Your task to perform on an android device: set the stopwatch Image 0: 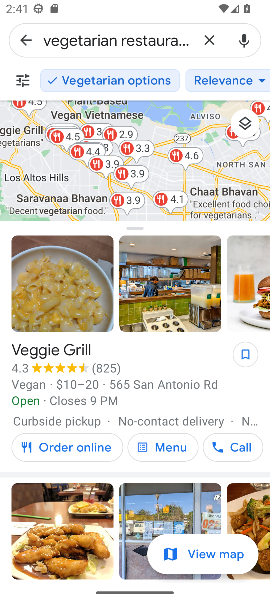
Step 0: press home button
Your task to perform on an android device: set the stopwatch Image 1: 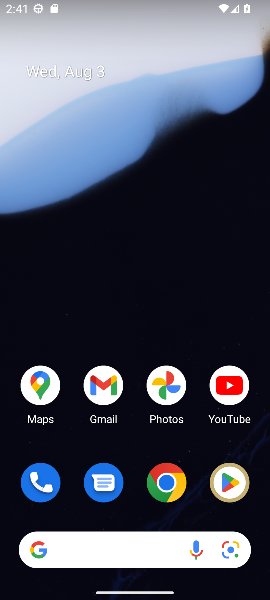
Step 1: drag from (106, 549) to (220, 120)
Your task to perform on an android device: set the stopwatch Image 2: 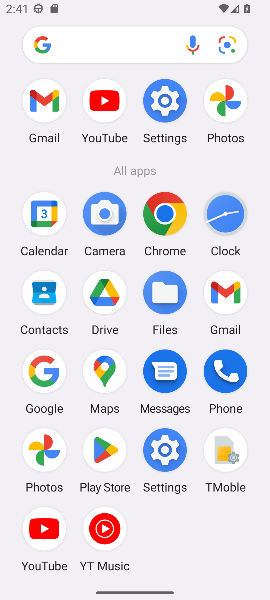
Step 2: click (221, 209)
Your task to perform on an android device: set the stopwatch Image 3: 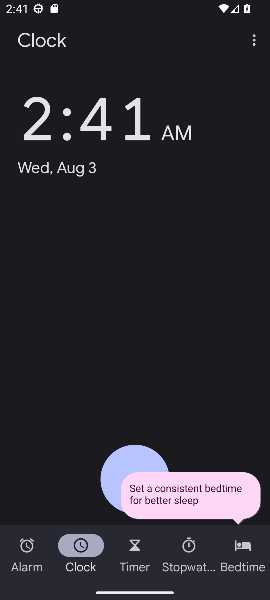
Step 3: click (186, 550)
Your task to perform on an android device: set the stopwatch Image 4: 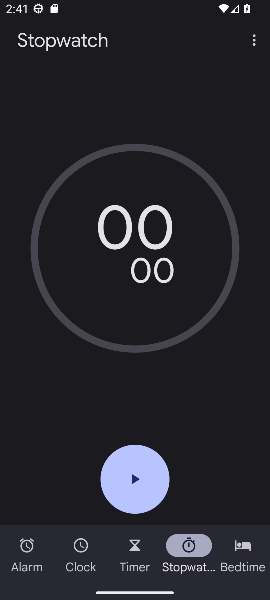
Step 4: click (146, 273)
Your task to perform on an android device: set the stopwatch Image 5: 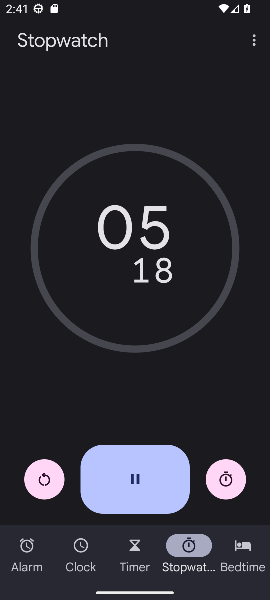
Step 5: click (226, 483)
Your task to perform on an android device: set the stopwatch Image 6: 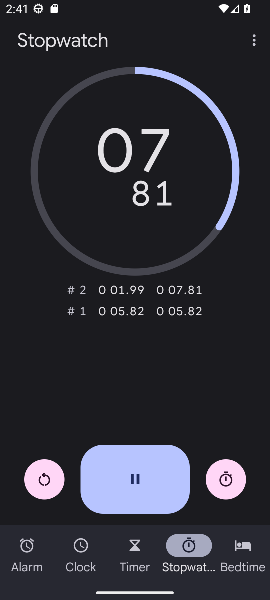
Step 6: click (132, 481)
Your task to perform on an android device: set the stopwatch Image 7: 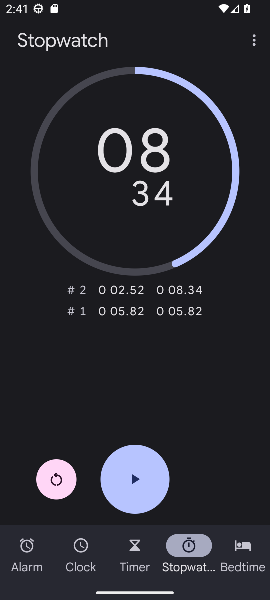
Step 7: task complete